Your task to perform on an android device: delete a single message in the gmail app Image 0: 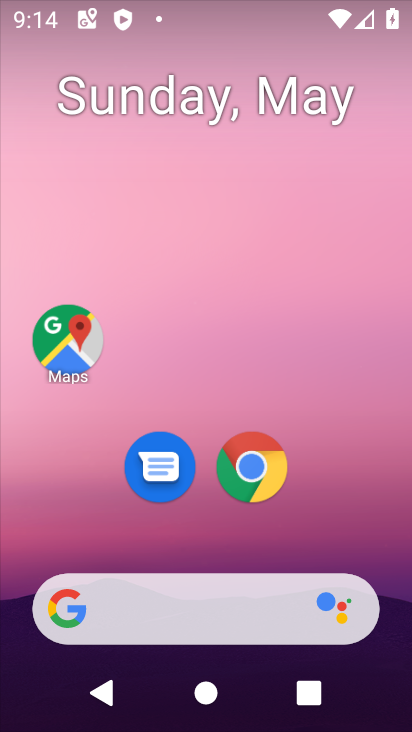
Step 0: drag from (359, 503) to (264, 43)
Your task to perform on an android device: delete a single message in the gmail app Image 1: 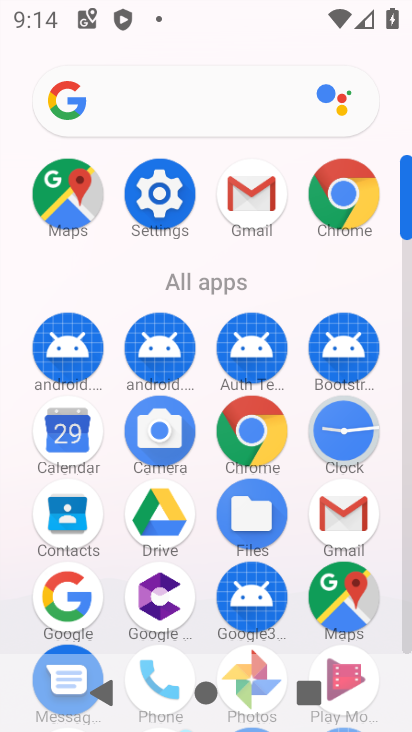
Step 1: click (253, 202)
Your task to perform on an android device: delete a single message in the gmail app Image 2: 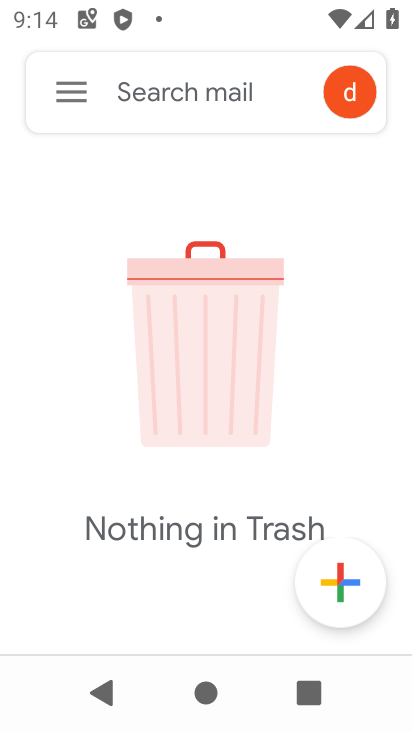
Step 2: click (78, 85)
Your task to perform on an android device: delete a single message in the gmail app Image 3: 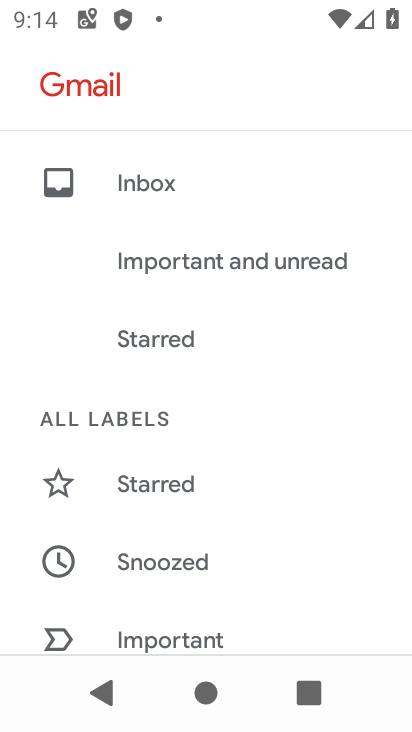
Step 3: drag from (181, 622) to (128, 205)
Your task to perform on an android device: delete a single message in the gmail app Image 4: 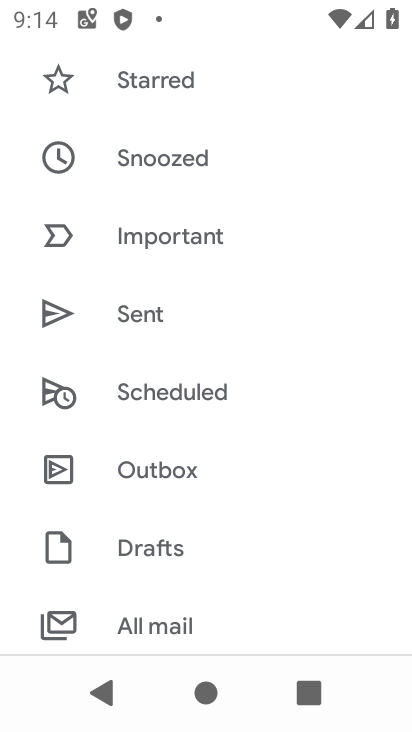
Step 4: drag from (220, 607) to (161, 246)
Your task to perform on an android device: delete a single message in the gmail app Image 5: 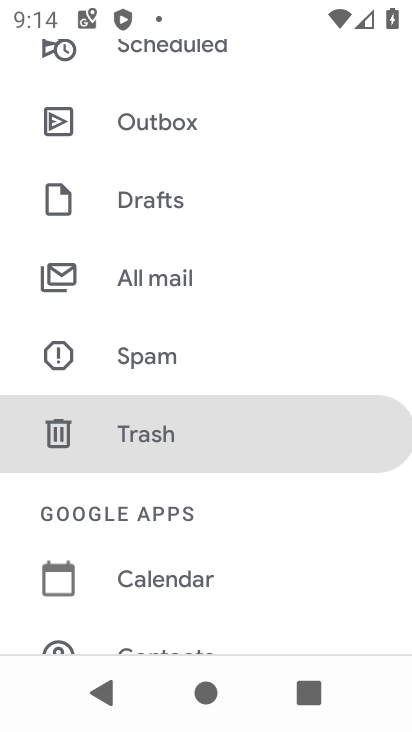
Step 5: drag from (233, 544) to (217, 145)
Your task to perform on an android device: delete a single message in the gmail app Image 6: 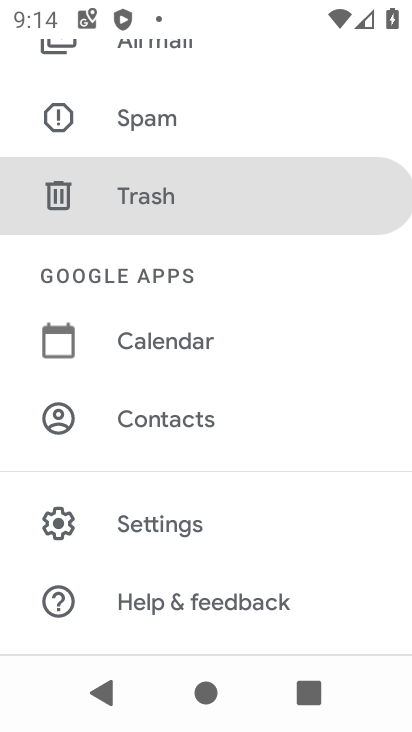
Step 6: drag from (225, 117) to (226, 340)
Your task to perform on an android device: delete a single message in the gmail app Image 7: 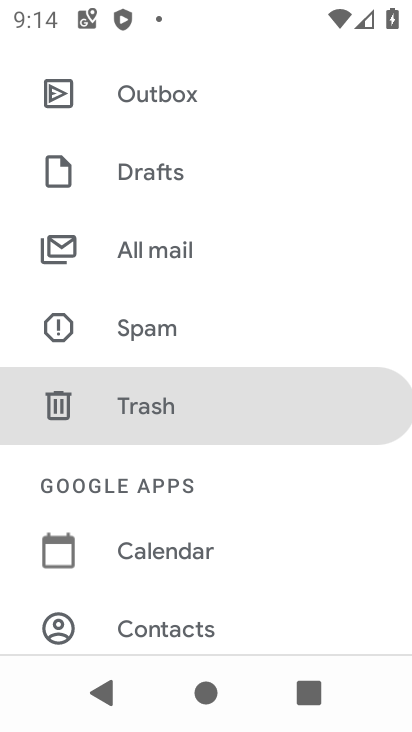
Step 7: click (214, 271)
Your task to perform on an android device: delete a single message in the gmail app Image 8: 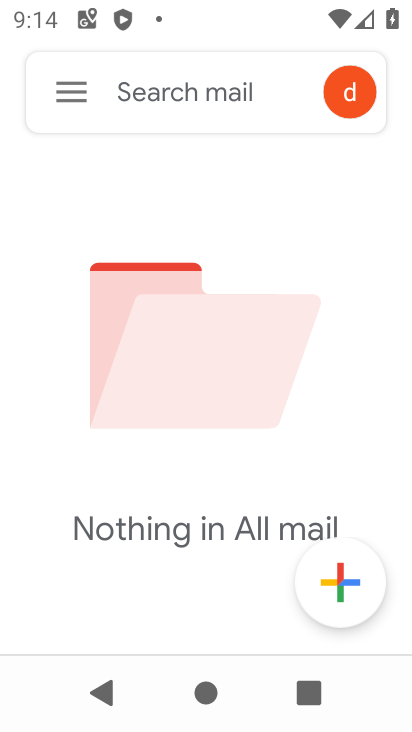
Step 8: task complete